Your task to perform on an android device: toggle improve location accuracy Image 0: 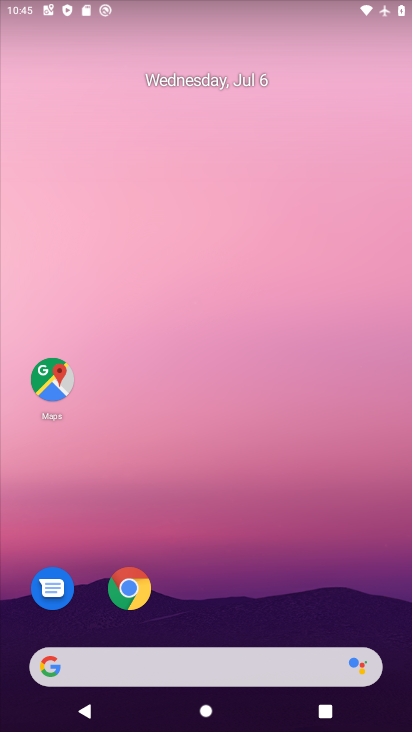
Step 0: press home button
Your task to perform on an android device: toggle improve location accuracy Image 1: 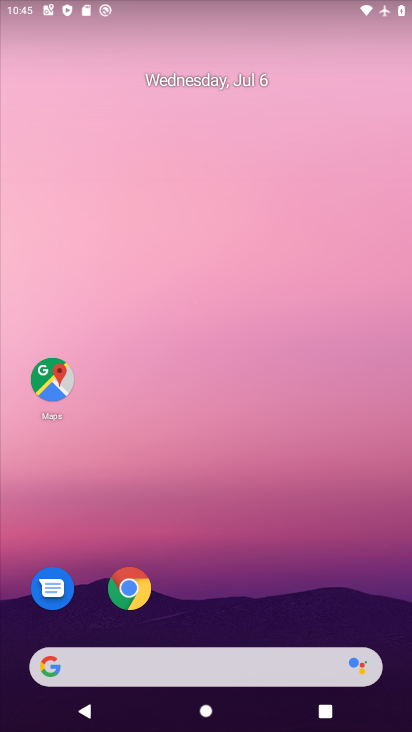
Step 1: drag from (221, 612) to (262, 219)
Your task to perform on an android device: toggle improve location accuracy Image 2: 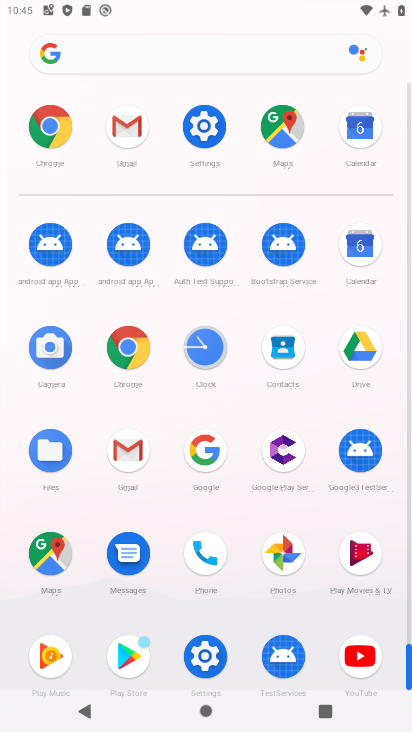
Step 2: click (211, 124)
Your task to perform on an android device: toggle improve location accuracy Image 3: 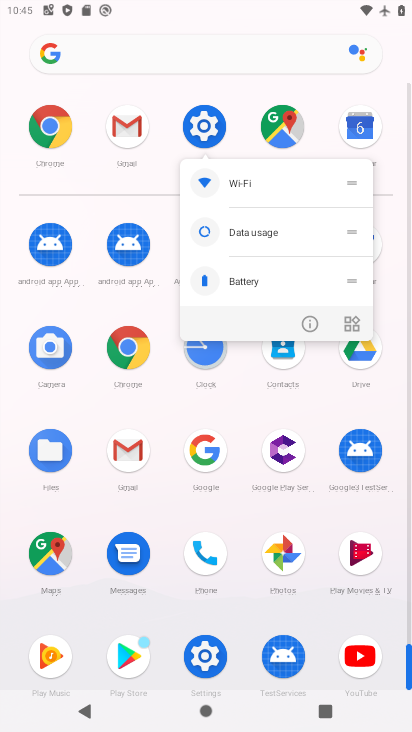
Step 3: click (199, 115)
Your task to perform on an android device: toggle improve location accuracy Image 4: 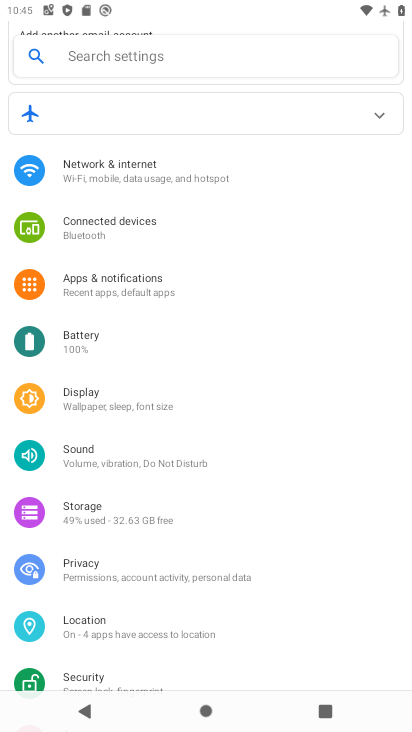
Step 4: click (148, 636)
Your task to perform on an android device: toggle improve location accuracy Image 5: 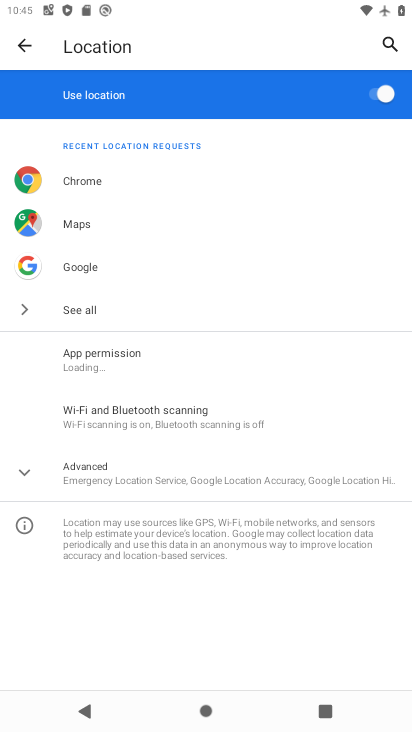
Step 5: click (158, 460)
Your task to perform on an android device: toggle improve location accuracy Image 6: 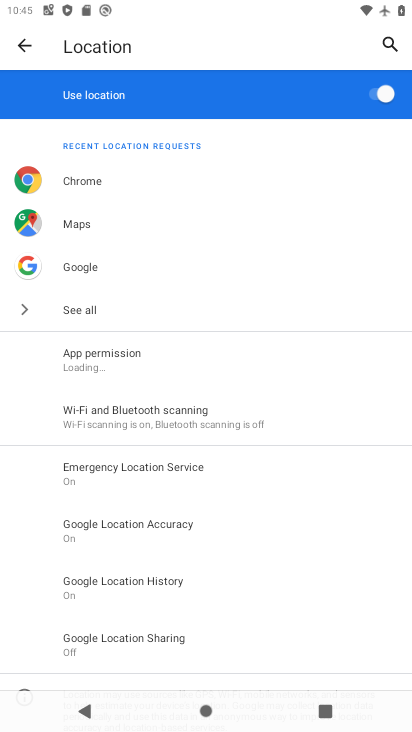
Step 6: click (185, 524)
Your task to perform on an android device: toggle improve location accuracy Image 7: 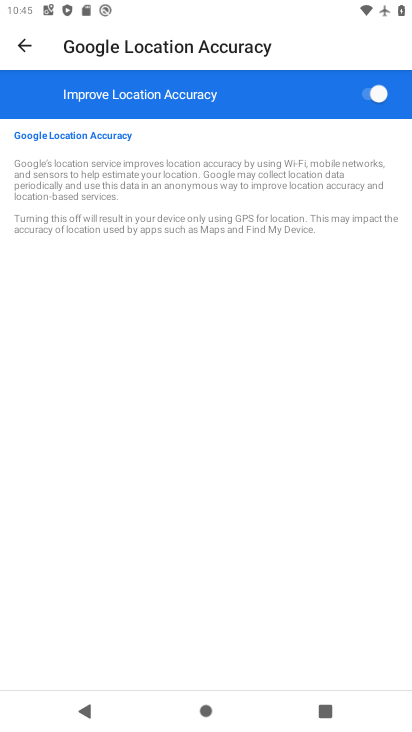
Step 7: click (358, 90)
Your task to perform on an android device: toggle improve location accuracy Image 8: 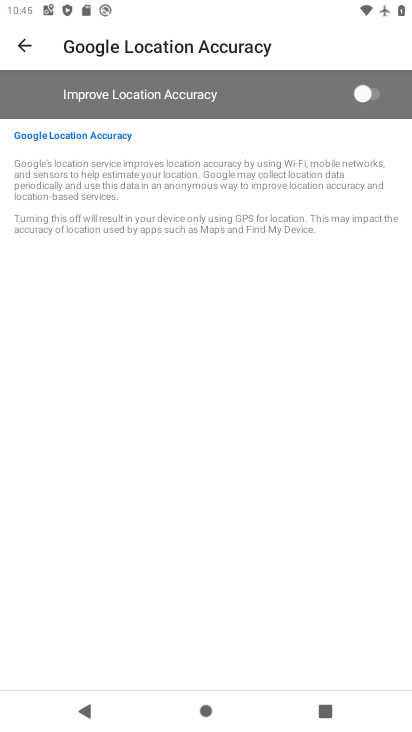
Step 8: task complete